Your task to perform on an android device: Go to sound settings Image 0: 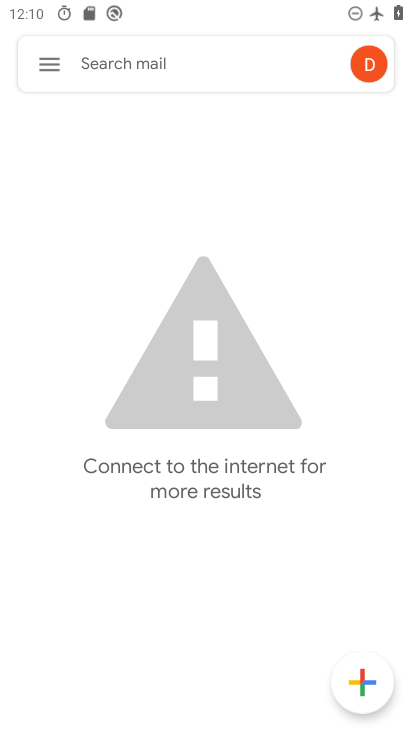
Step 0: press home button
Your task to perform on an android device: Go to sound settings Image 1: 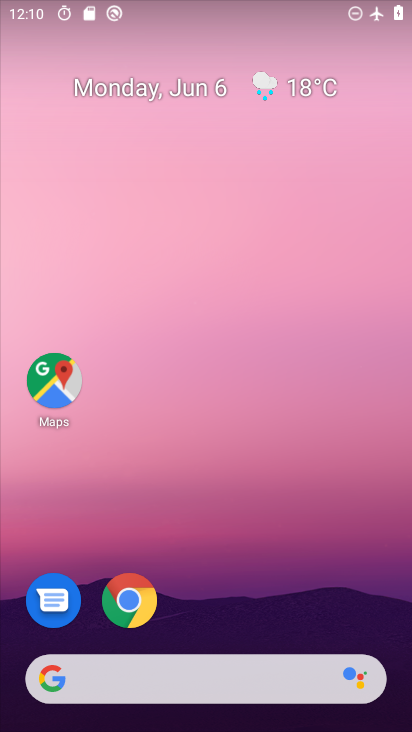
Step 1: drag from (224, 615) to (232, 130)
Your task to perform on an android device: Go to sound settings Image 2: 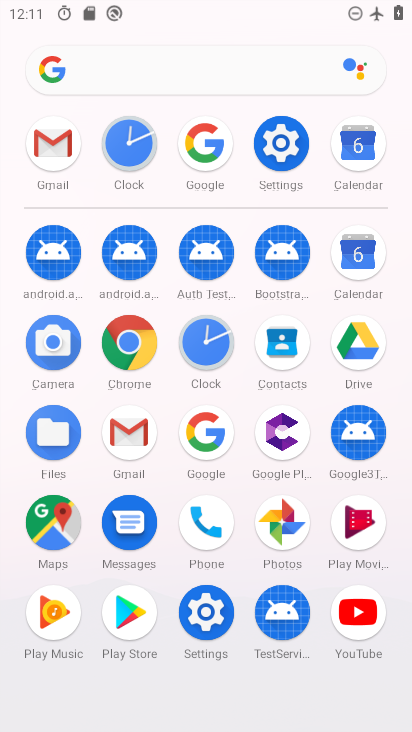
Step 2: click (290, 127)
Your task to perform on an android device: Go to sound settings Image 3: 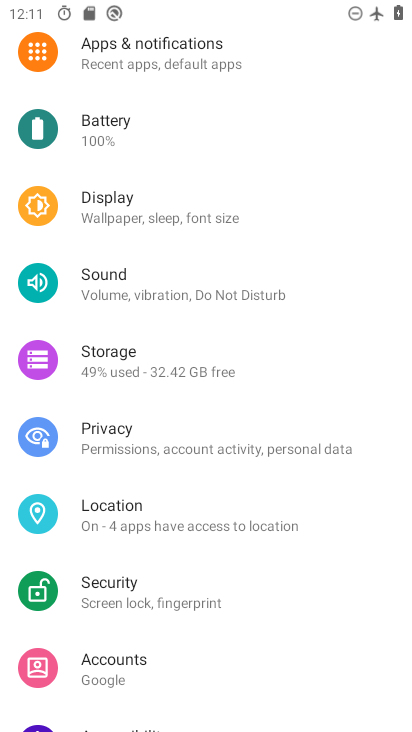
Step 3: drag from (220, 618) to (189, 583)
Your task to perform on an android device: Go to sound settings Image 4: 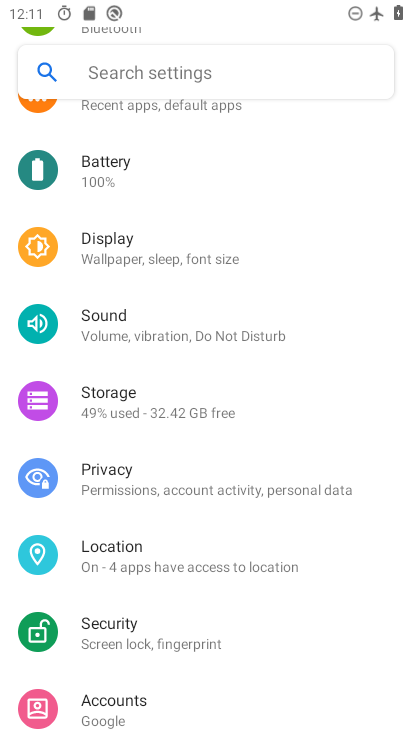
Step 4: click (158, 336)
Your task to perform on an android device: Go to sound settings Image 5: 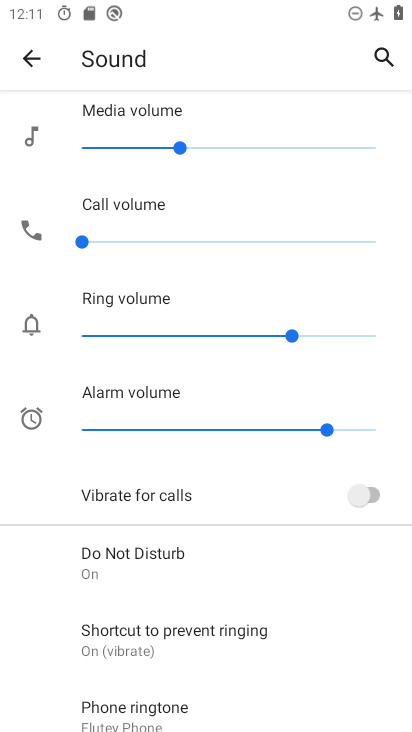
Step 5: task complete